Your task to perform on an android device: open wifi settings Image 0: 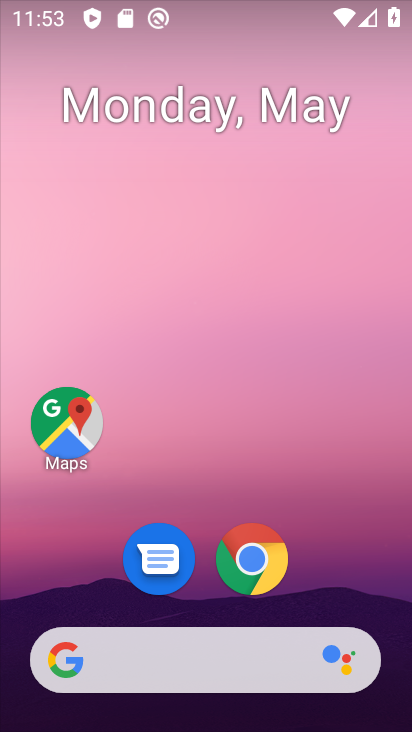
Step 0: drag from (212, 602) to (219, 23)
Your task to perform on an android device: open wifi settings Image 1: 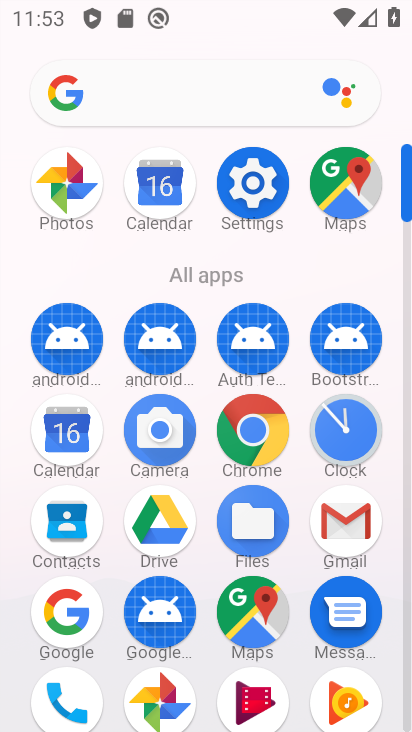
Step 1: click (260, 183)
Your task to perform on an android device: open wifi settings Image 2: 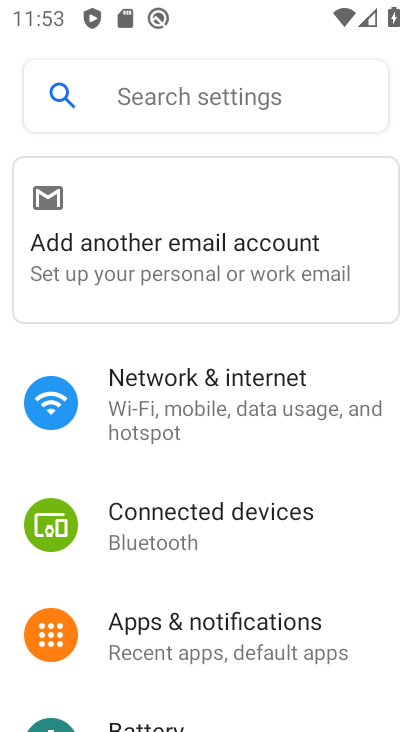
Step 2: click (145, 407)
Your task to perform on an android device: open wifi settings Image 3: 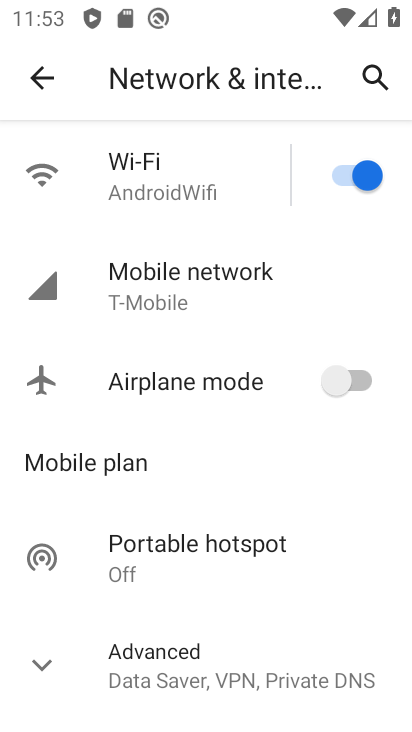
Step 3: click (190, 161)
Your task to perform on an android device: open wifi settings Image 4: 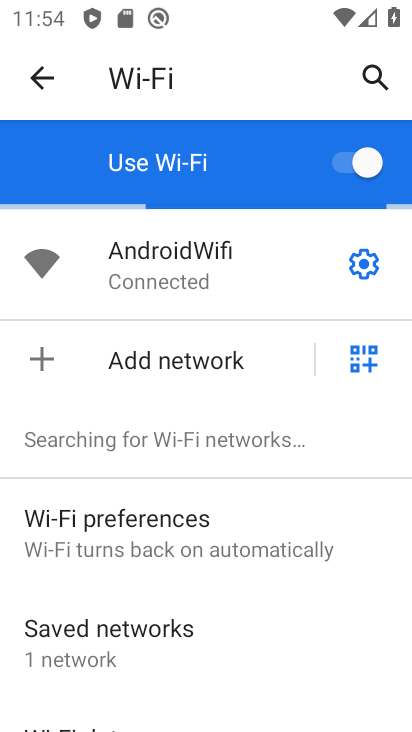
Step 4: task complete